Your task to perform on an android device: Open settings on Google Maps Image 0: 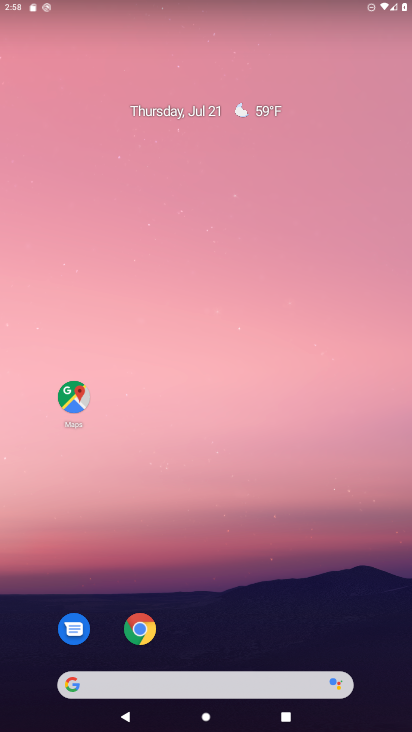
Step 0: drag from (224, 717) to (173, 109)
Your task to perform on an android device: Open settings on Google Maps Image 1: 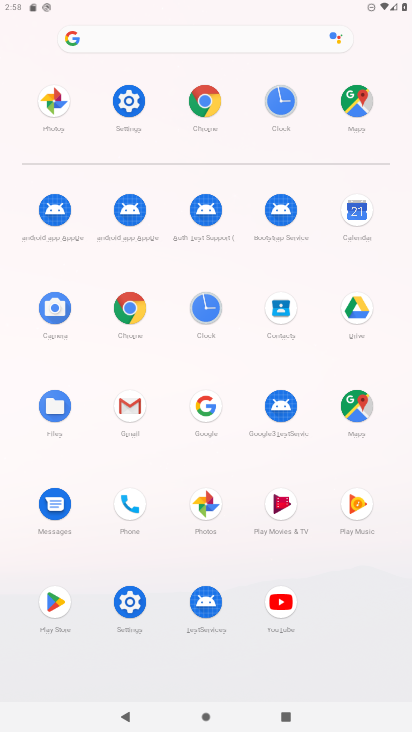
Step 1: click (360, 412)
Your task to perform on an android device: Open settings on Google Maps Image 2: 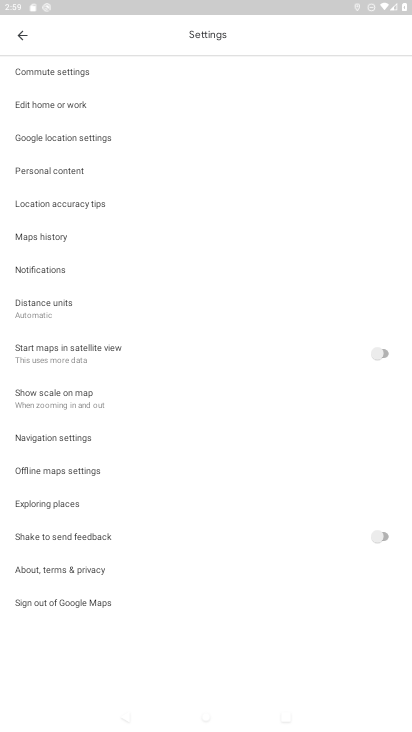
Step 2: task complete